Your task to perform on an android device: Open privacy settings Image 0: 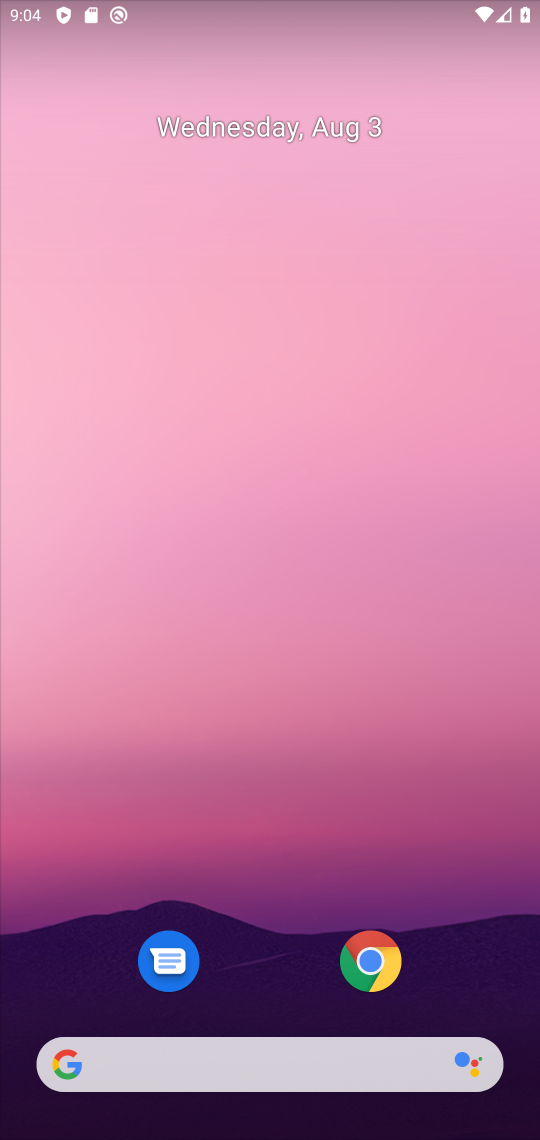
Step 0: drag from (338, 1010) to (286, 70)
Your task to perform on an android device: Open privacy settings Image 1: 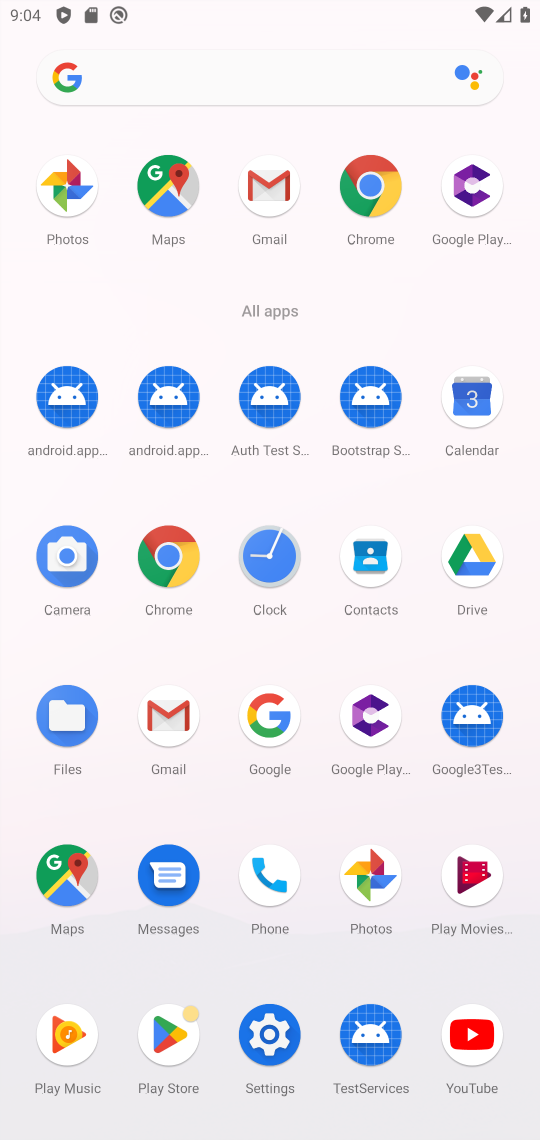
Step 1: click (265, 1022)
Your task to perform on an android device: Open privacy settings Image 2: 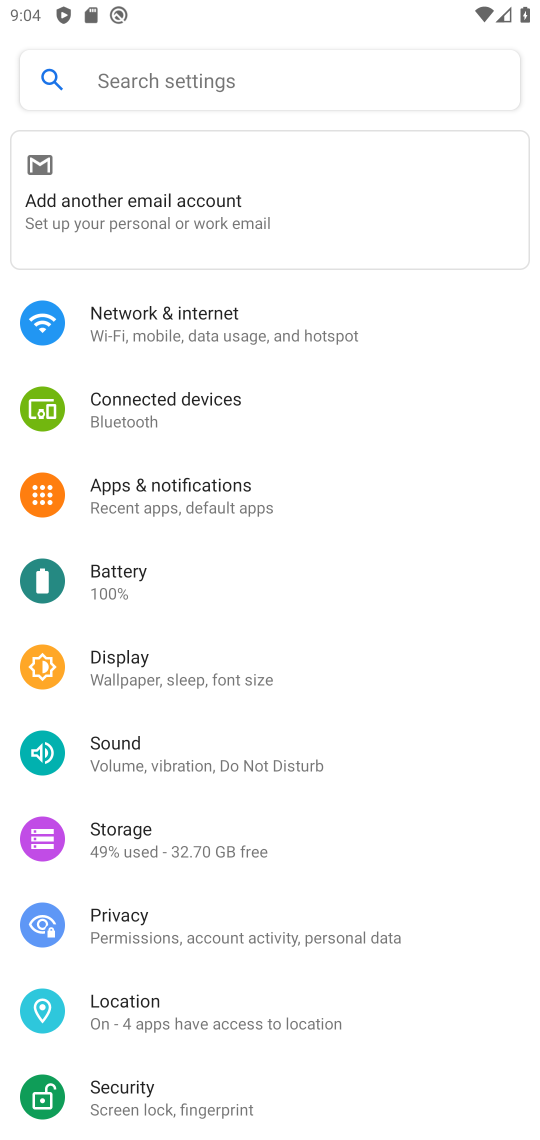
Step 2: click (192, 926)
Your task to perform on an android device: Open privacy settings Image 3: 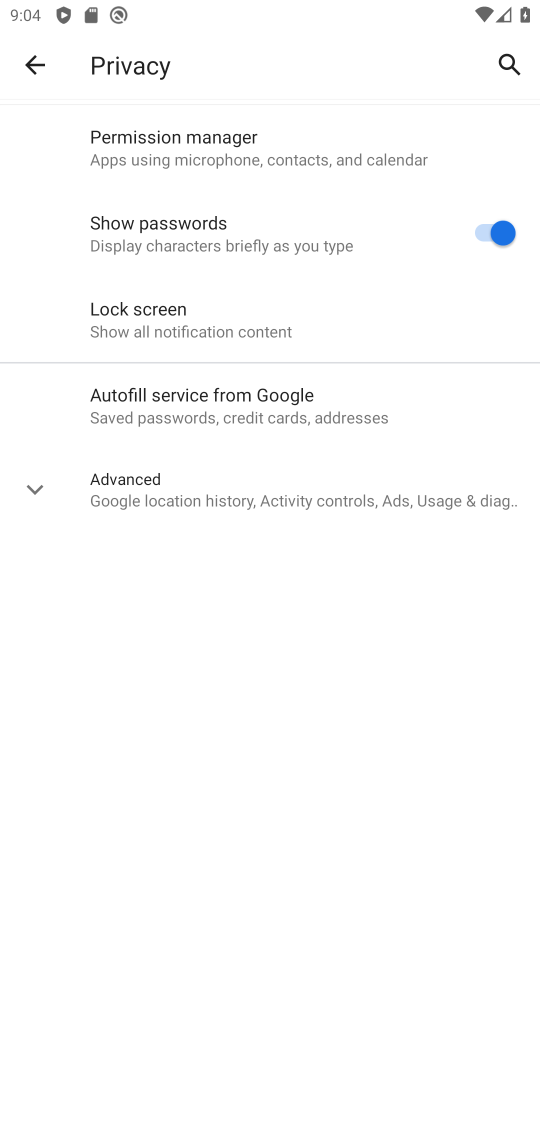
Step 3: task complete